Your task to perform on an android device: Open Chrome and go to the settings page Image 0: 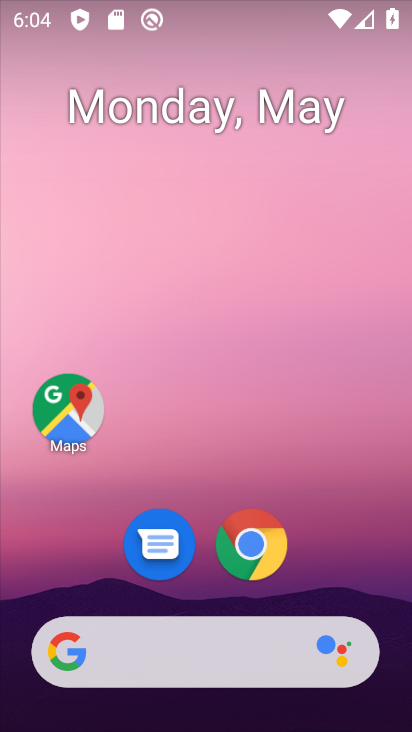
Step 0: click (268, 549)
Your task to perform on an android device: Open Chrome and go to the settings page Image 1: 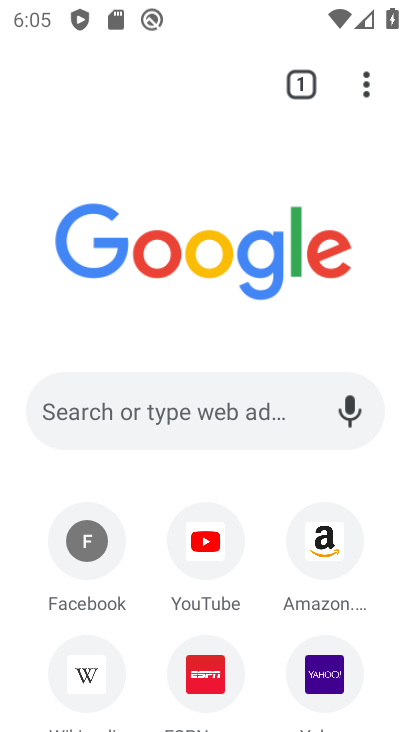
Step 1: click (364, 68)
Your task to perform on an android device: Open Chrome and go to the settings page Image 2: 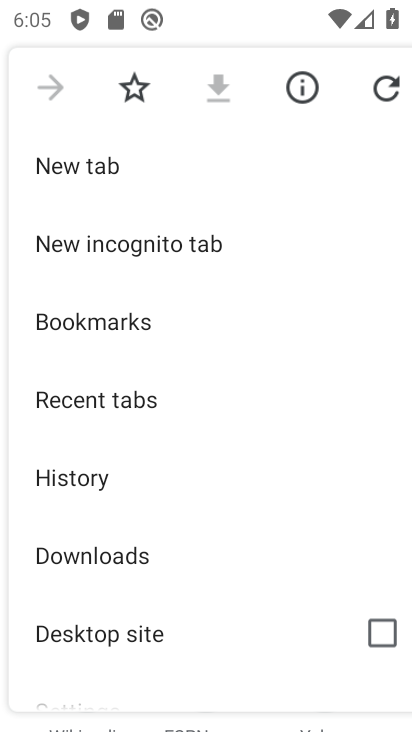
Step 2: drag from (216, 634) to (226, 85)
Your task to perform on an android device: Open Chrome and go to the settings page Image 3: 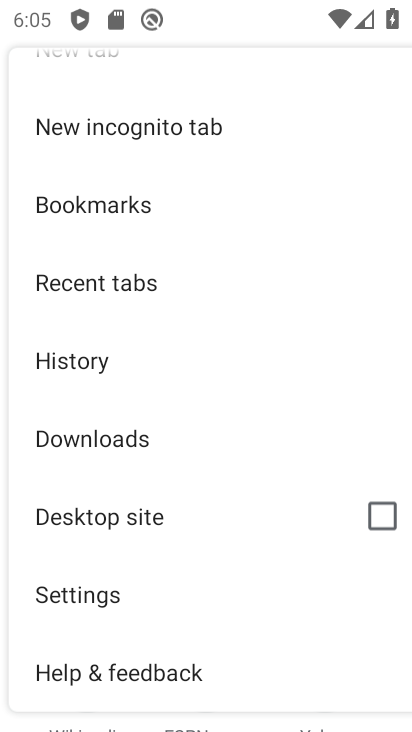
Step 3: click (176, 601)
Your task to perform on an android device: Open Chrome and go to the settings page Image 4: 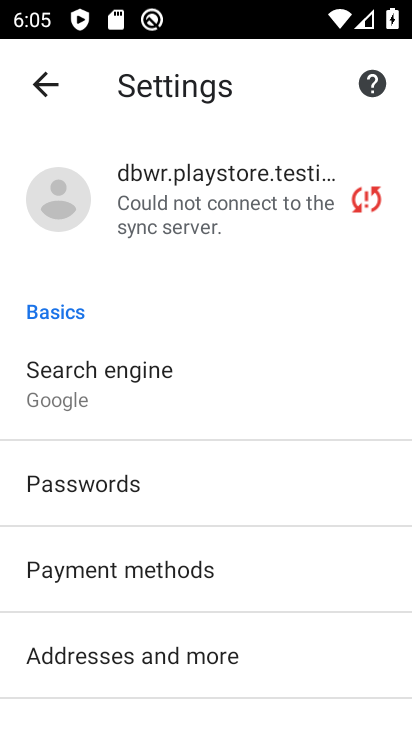
Step 4: task complete